Your task to perform on an android device: delete the emails in spam in the gmail app Image 0: 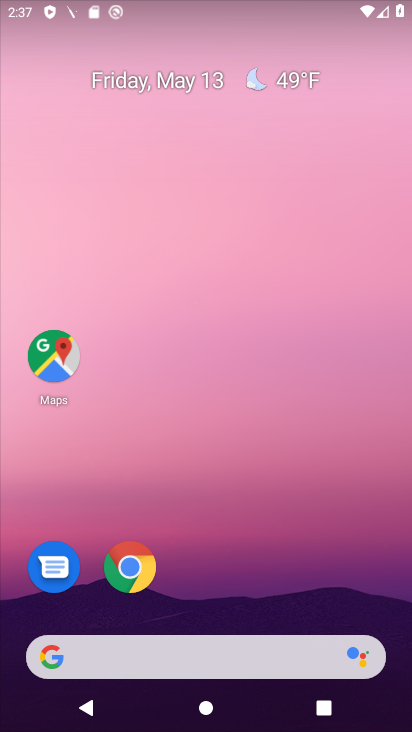
Step 0: drag from (208, 631) to (157, 7)
Your task to perform on an android device: delete the emails in spam in the gmail app Image 1: 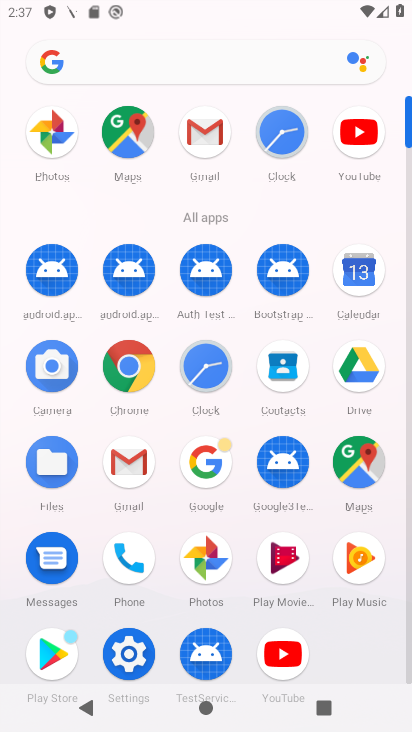
Step 1: click (118, 465)
Your task to perform on an android device: delete the emails in spam in the gmail app Image 2: 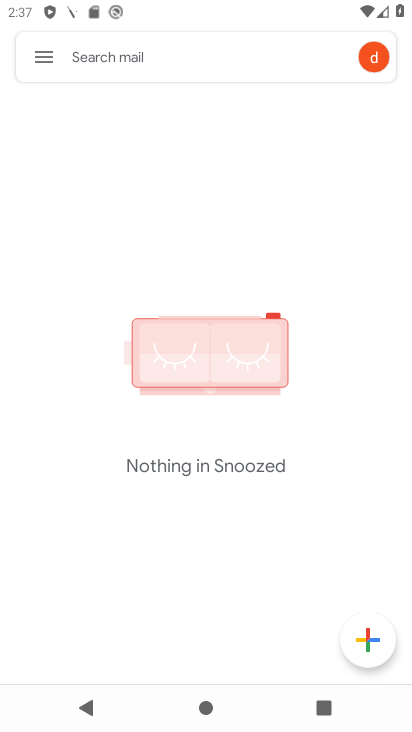
Step 2: click (44, 51)
Your task to perform on an android device: delete the emails in spam in the gmail app Image 3: 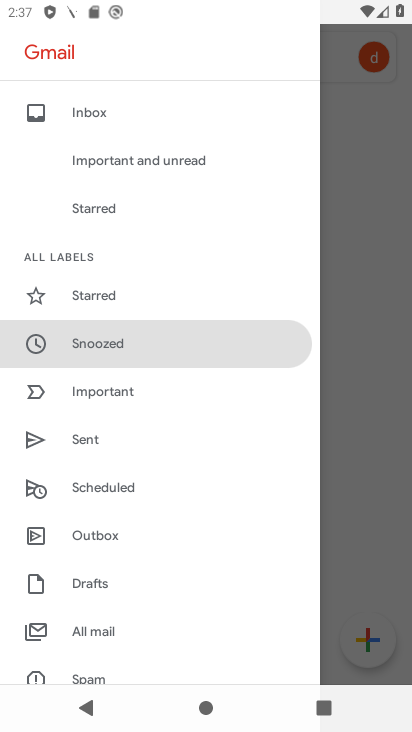
Step 3: click (100, 662)
Your task to perform on an android device: delete the emails in spam in the gmail app Image 4: 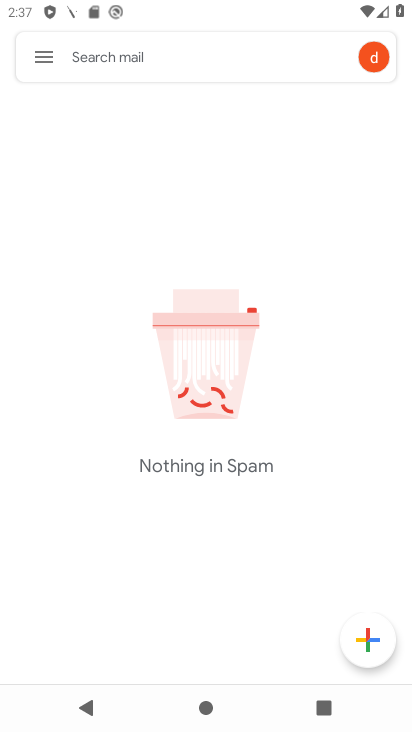
Step 4: task complete